Your task to perform on an android device: Open Youtube and go to the subscriptions tab Image 0: 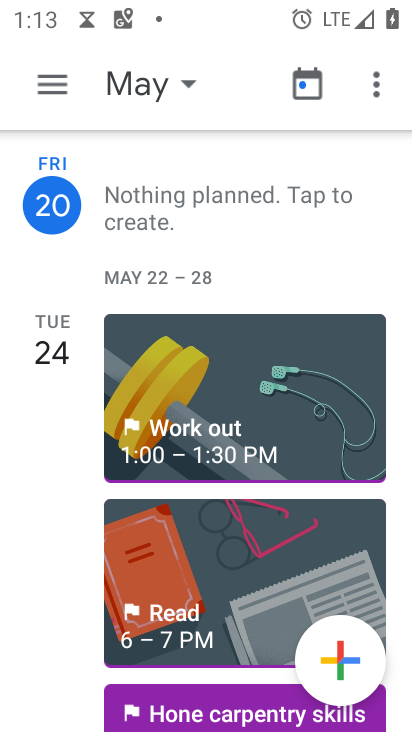
Step 0: press home button
Your task to perform on an android device: Open Youtube and go to the subscriptions tab Image 1: 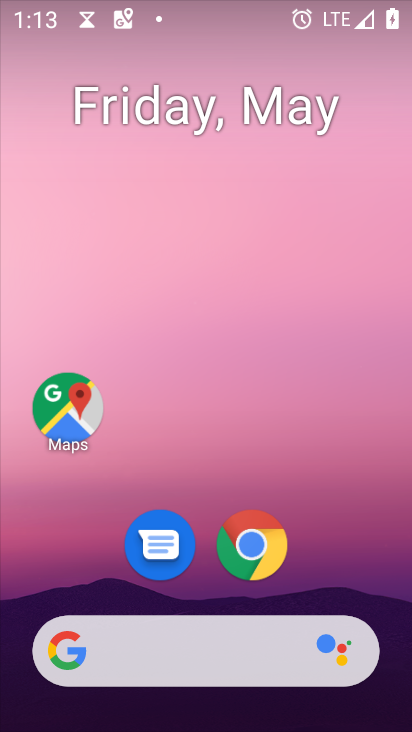
Step 1: drag from (321, 535) to (299, 92)
Your task to perform on an android device: Open Youtube and go to the subscriptions tab Image 2: 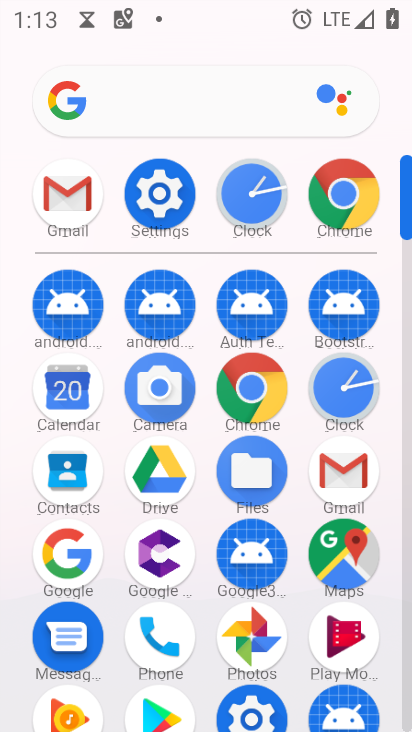
Step 2: drag from (301, 671) to (296, 283)
Your task to perform on an android device: Open Youtube and go to the subscriptions tab Image 3: 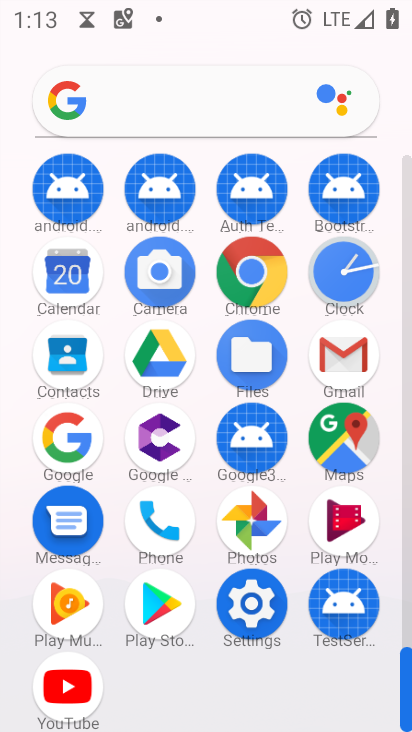
Step 3: click (70, 671)
Your task to perform on an android device: Open Youtube and go to the subscriptions tab Image 4: 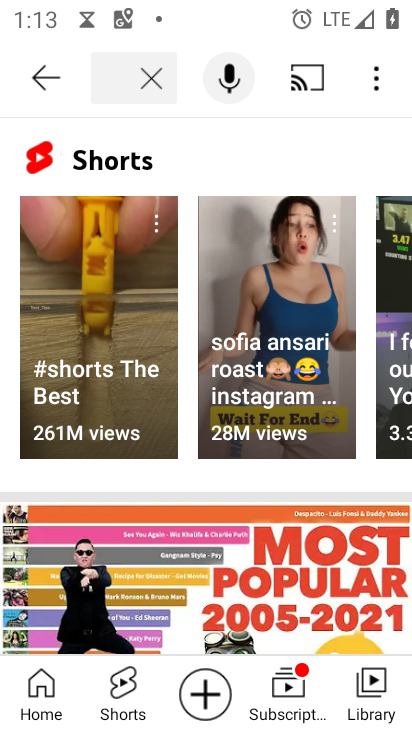
Step 4: click (278, 700)
Your task to perform on an android device: Open Youtube and go to the subscriptions tab Image 5: 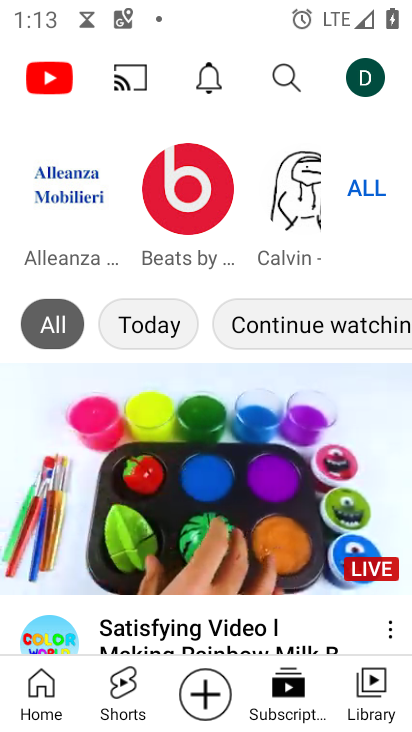
Step 5: task complete